Your task to perform on an android device: Open wifi settings Image 0: 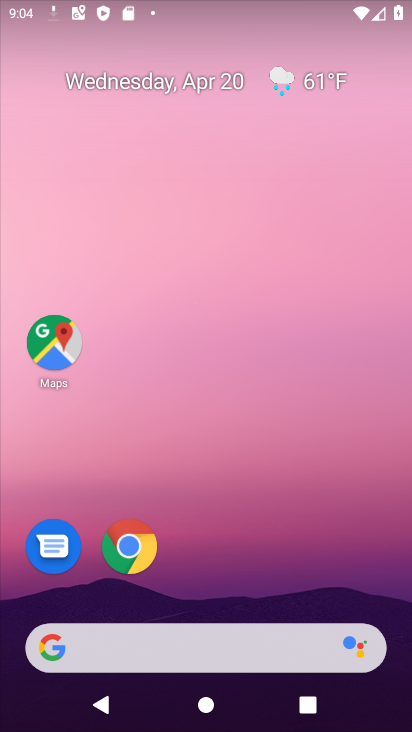
Step 0: drag from (207, 329) to (203, 56)
Your task to perform on an android device: Open wifi settings Image 1: 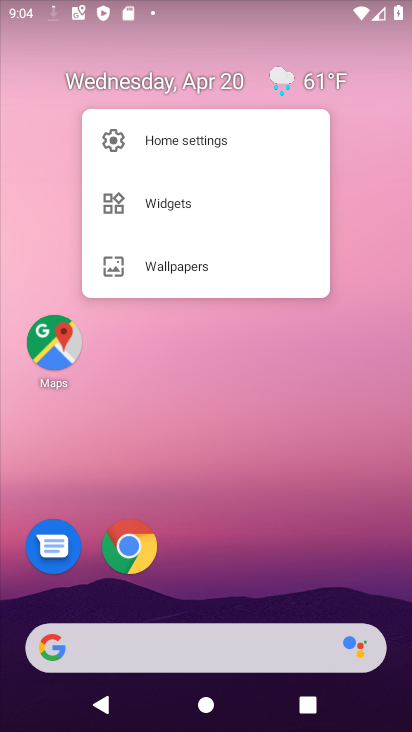
Step 1: click (298, 398)
Your task to perform on an android device: Open wifi settings Image 2: 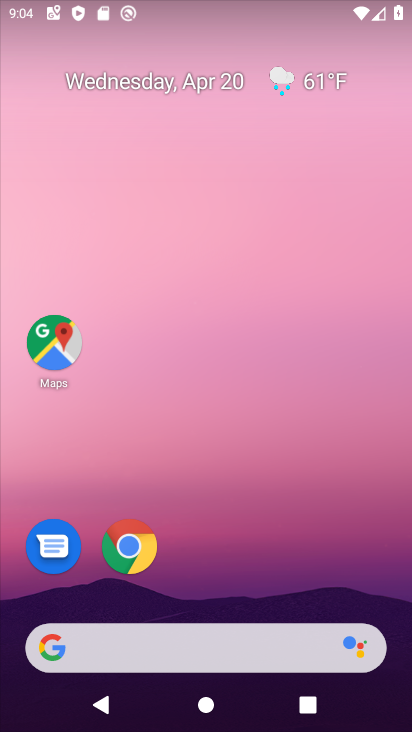
Step 2: drag from (233, 643) to (235, 147)
Your task to perform on an android device: Open wifi settings Image 3: 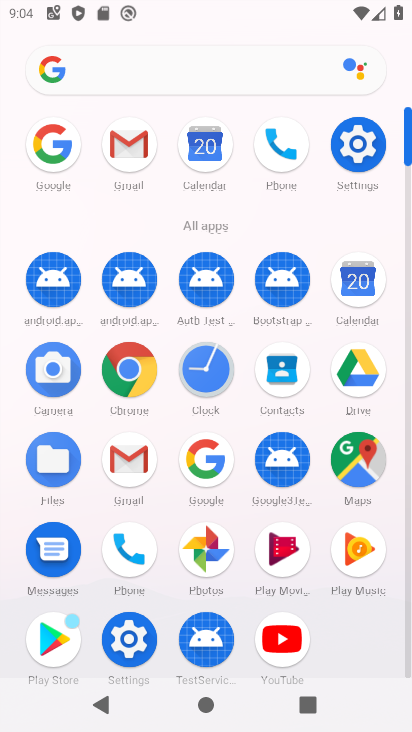
Step 3: click (356, 138)
Your task to perform on an android device: Open wifi settings Image 4: 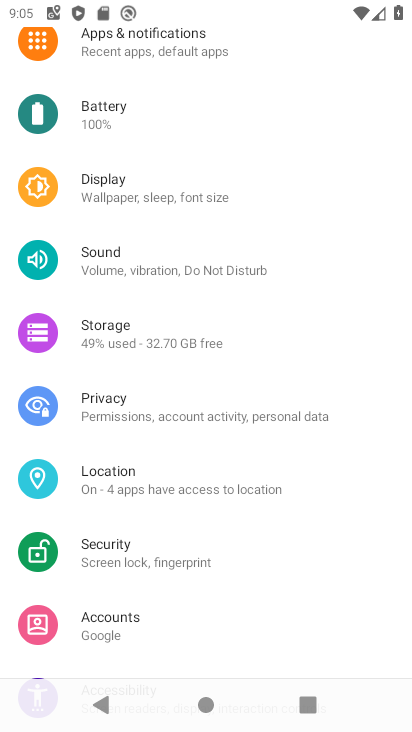
Step 4: drag from (176, 142) to (173, 511)
Your task to perform on an android device: Open wifi settings Image 5: 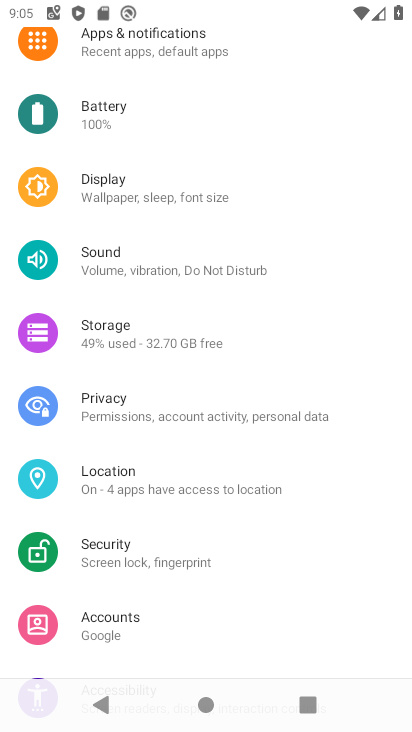
Step 5: drag from (183, 166) to (186, 529)
Your task to perform on an android device: Open wifi settings Image 6: 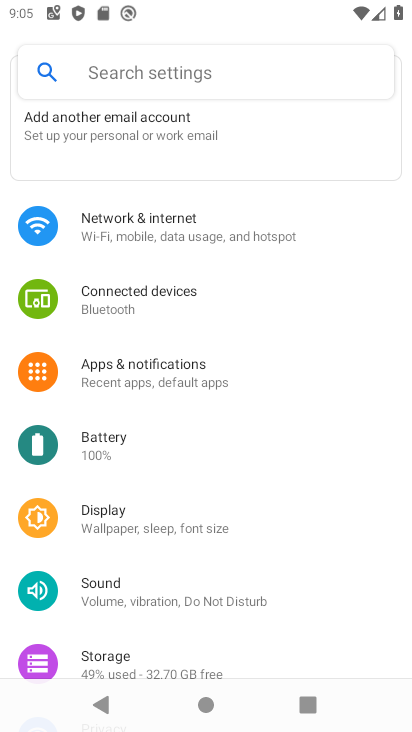
Step 6: click (147, 239)
Your task to perform on an android device: Open wifi settings Image 7: 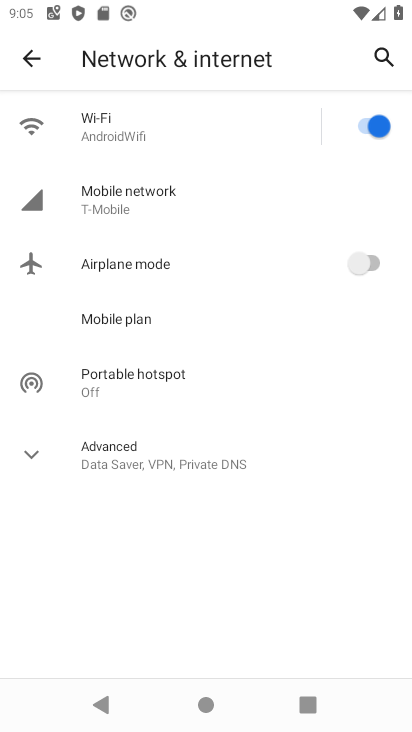
Step 7: click (99, 116)
Your task to perform on an android device: Open wifi settings Image 8: 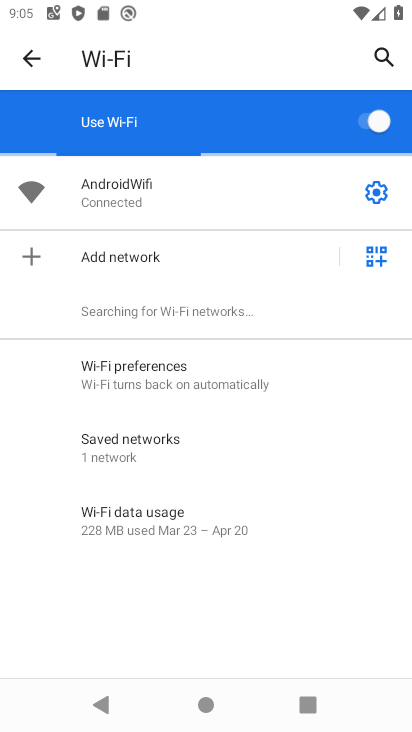
Step 8: click (381, 191)
Your task to perform on an android device: Open wifi settings Image 9: 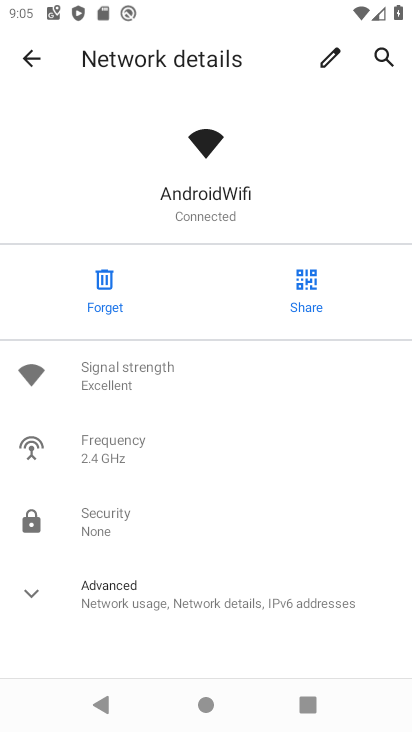
Step 9: task complete